Your task to perform on an android device: turn off sleep mode Image 0: 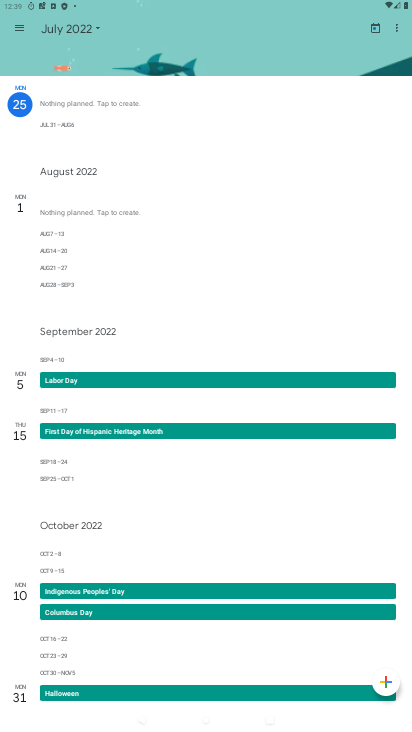
Step 0: press home button
Your task to perform on an android device: turn off sleep mode Image 1: 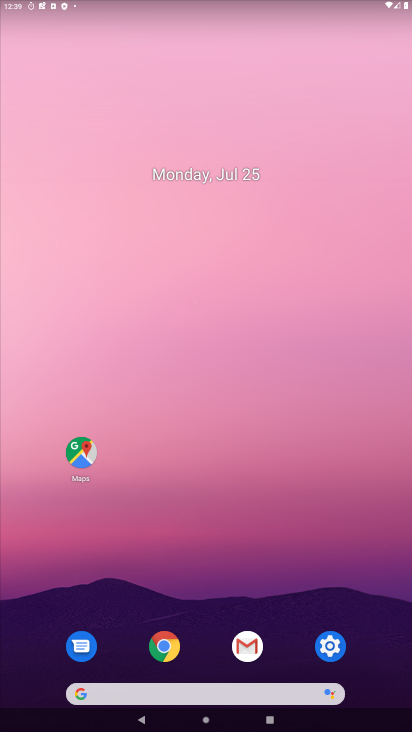
Step 1: click (324, 630)
Your task to perform on an android device: turn off sleep mode Image 2: 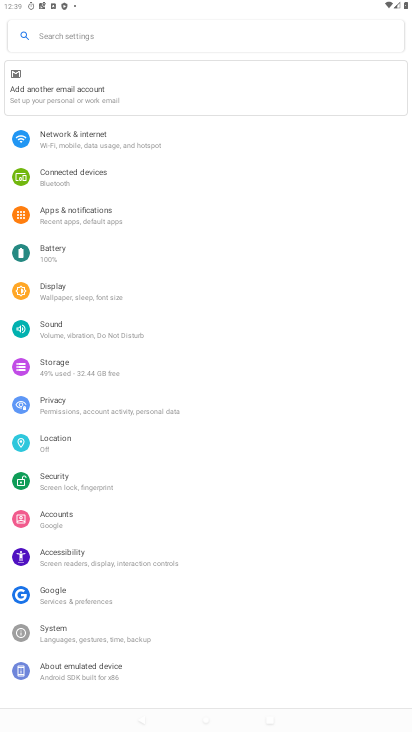
Step 2: click (103, 45)
Your task to perform on an android device: turn off sleep mode Image 3: 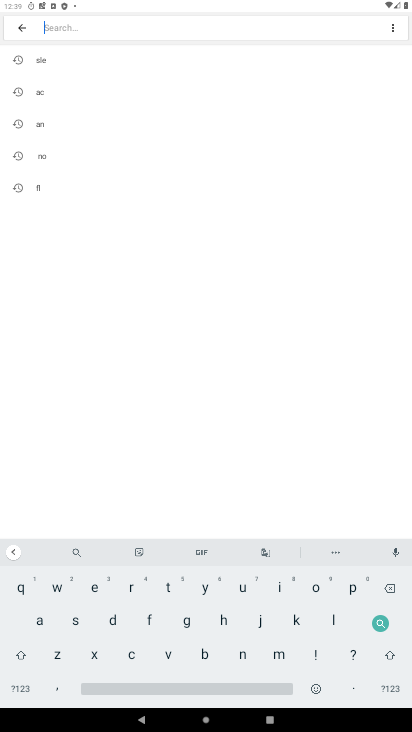
Step 3: click (69, 635)
Your task to perform on an android device: turn off sleep mode Image 4: 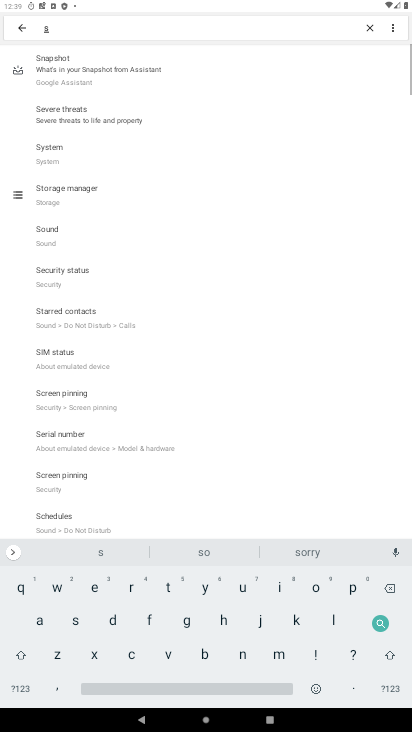
Step 4: click (337, 616)
Your task to perform on an android device: turn off sleep mode Image 5: 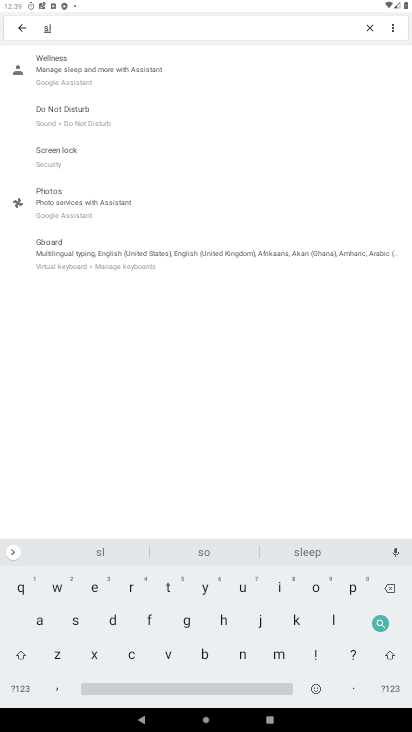
Step 5: click (105, 65)
Your task to perform on an android device: turn off sleep mode Image 6: 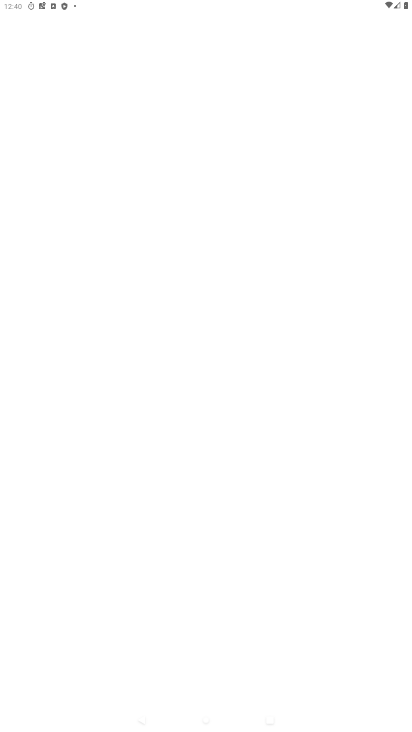
Step 6: task complete